Your task to perform on an android device: see creations saved in the google photos Image 0: 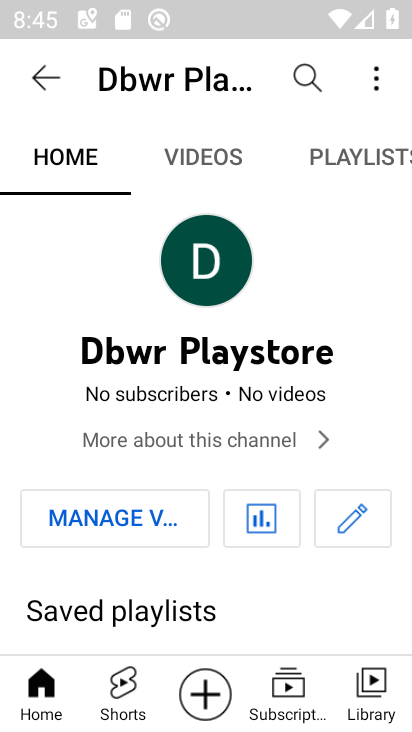
Step 0: press home button
Your task to perform on an android device: see creations saved in the google photos Image 1: 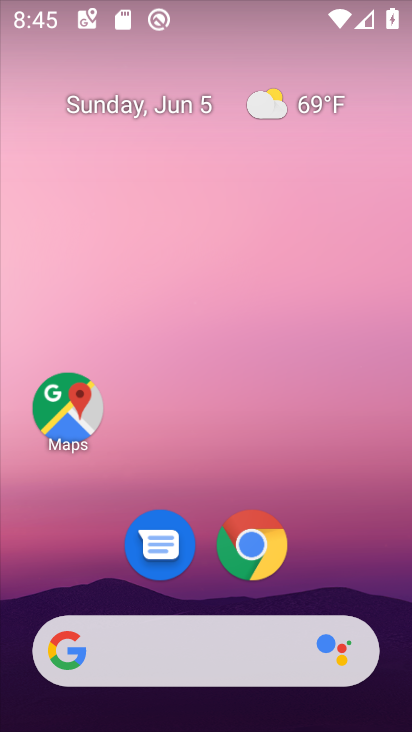
Step 1: drag from (349, 528) to (353, 151)
Your task to perform on an android device: see creations saved in the google photos Image 2: 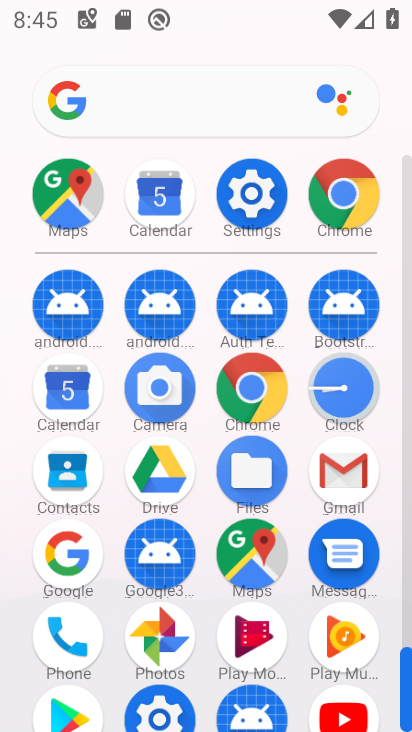
Step 2: click (173, 644)
Your task to perform on an android device: see creations saved in the google photos Image 3: 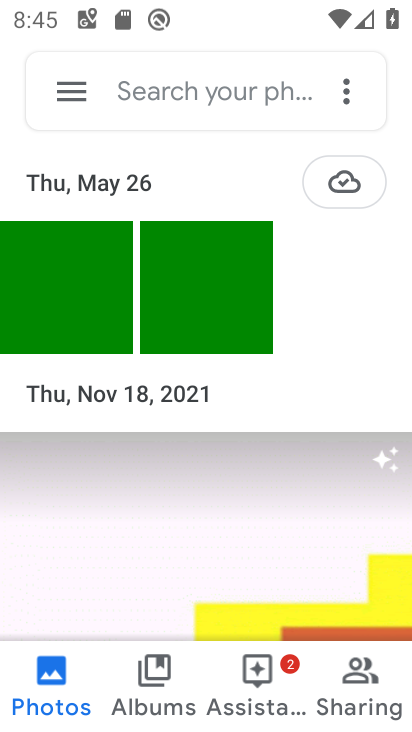
Step 3: click (216, 103)
Your task to perform on an android device: see creations saved in the google photos Image 4: 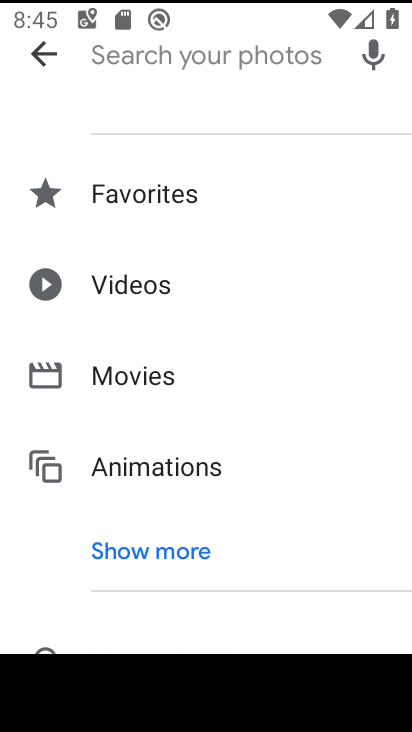
Step 4: drag from (288, 440) to (313, 289)
Your task to perform on an android device: see creations saved in the google photos Image 5: 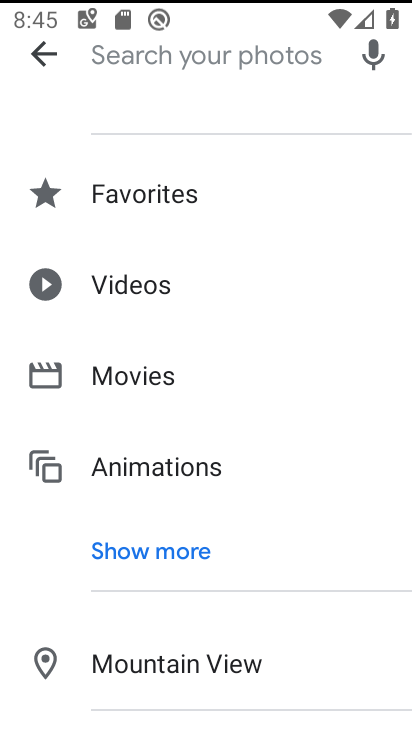
Step 5: click (204, 552)
Your task to perform on an android device: see creations saved in the google photos Image 6: 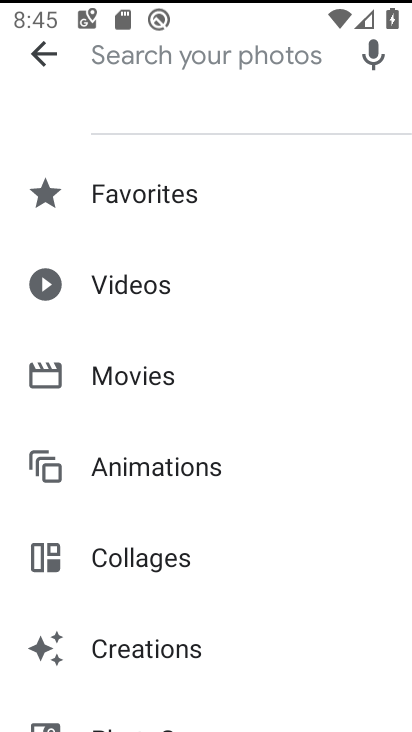
Step 6: drag from (282, 512) to (304, 356)
Your task to perform on an android device: see creations saved in the google photos Image 7: 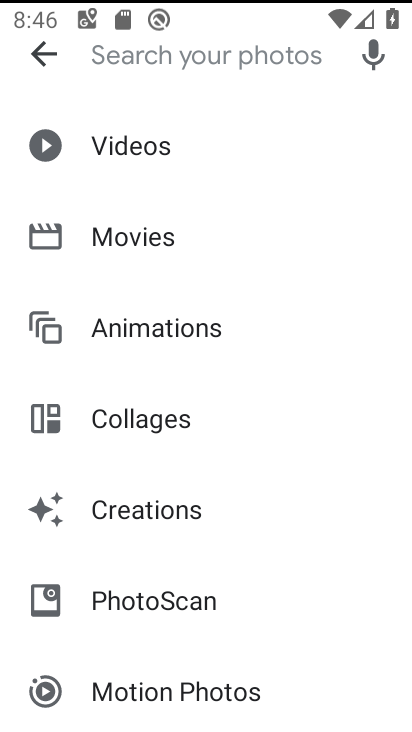
Step 7: click (229, 527)
Your task to perform on an android device: see creations saved in the google photos Image 8: 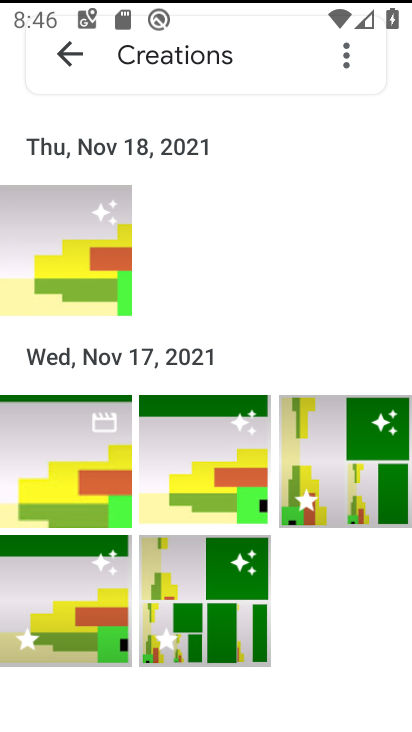
Step 8: task complete